Your task to perform on an android device: toggle sleep mode Image 0: 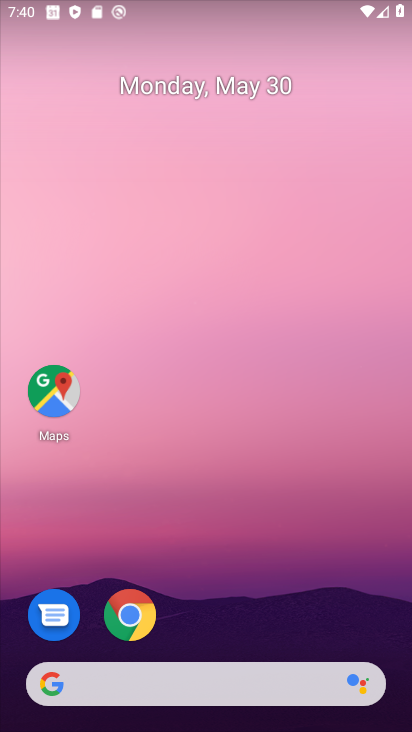
Step 0: drag from (342, 513) to (316, 169)
Your task to perform on an android device: toggle sleep mode Image 1: 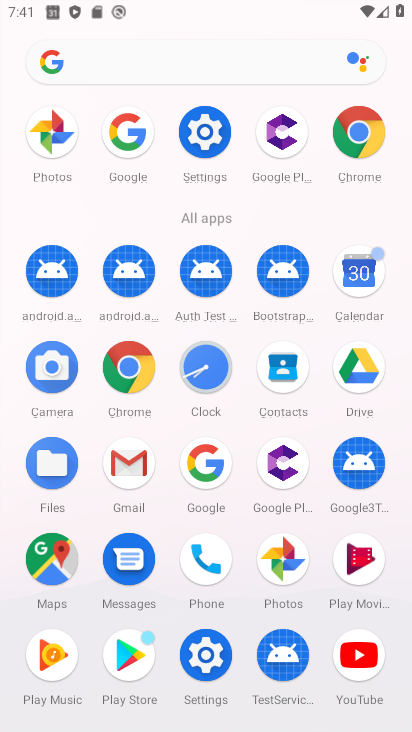
Step 1: click (203, 135)
Your task to perform on an android device: toggle sleep mode Image 2: 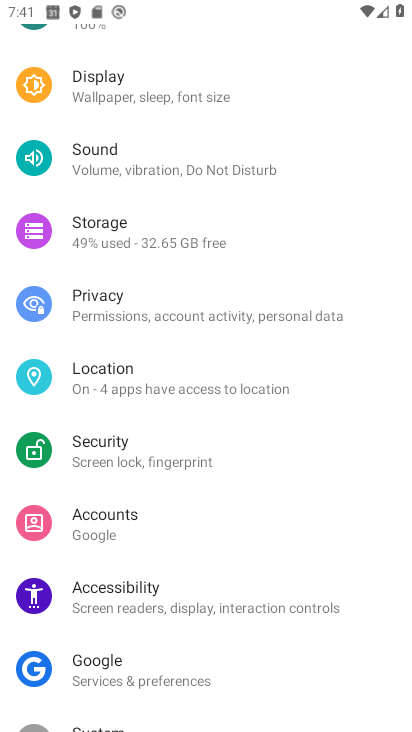
Step 2: click (122, 102)
Your task to perform on an android device: toggle sleep mode Image 3: 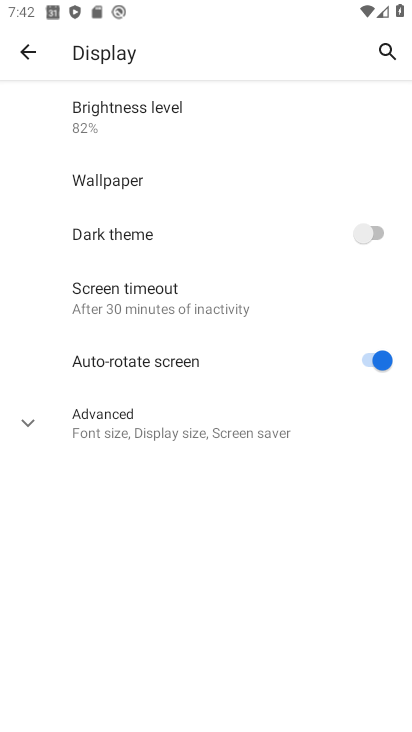
Step 3: click (137, 301)
Your task to perform on an android device: toggle sleep mode Image 4: 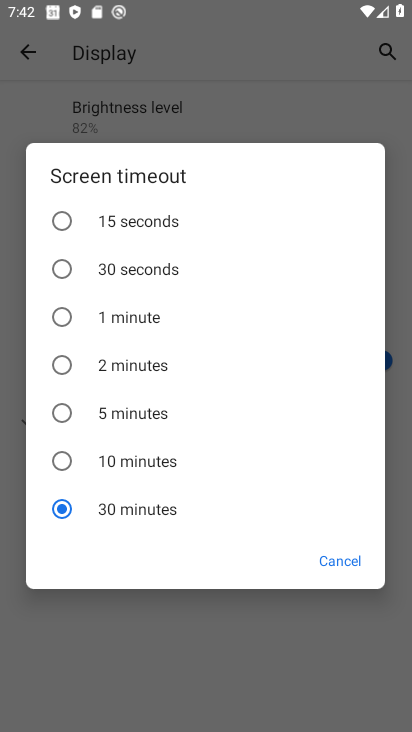
Step 4: click (103, 321)
Your task to perform on an android device: toggle sleep mode Image 5: 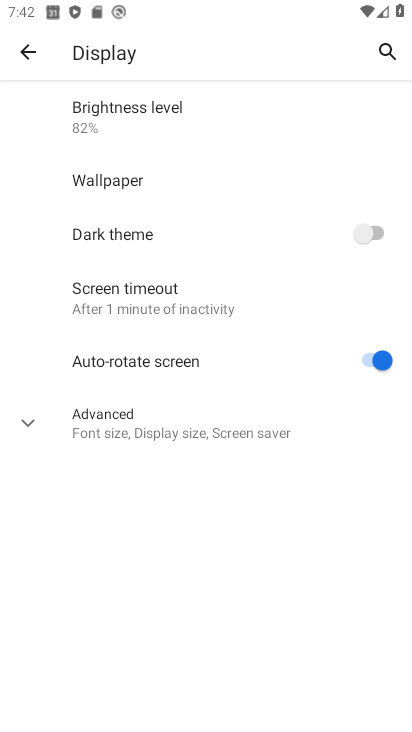
Step 5: task complete